Your task to perform on an android device: Open Yahoo.com Image 0: 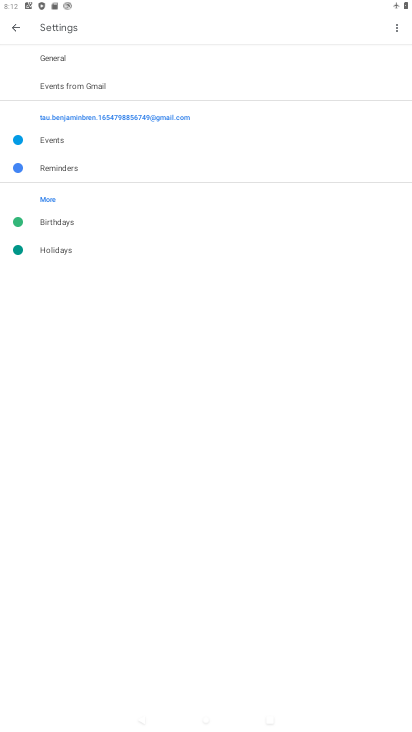
Step 0: click (35, 7)
Your task to perform on an android device: Open Yahoo.com Image 1: 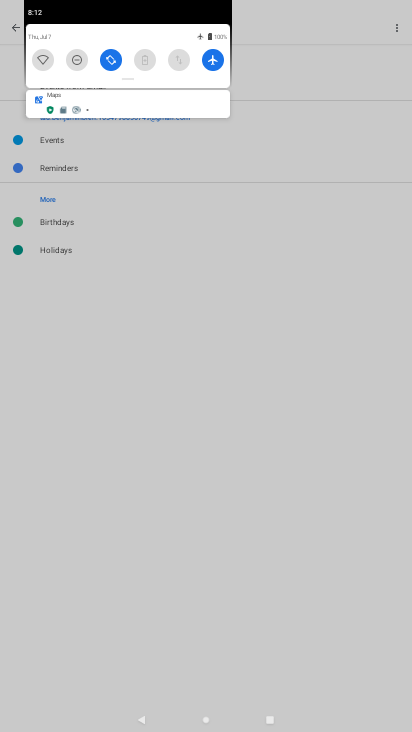
Step 1: click (20, 20)
Your task to perform on an android device: Open Yahoo.com Image 2: 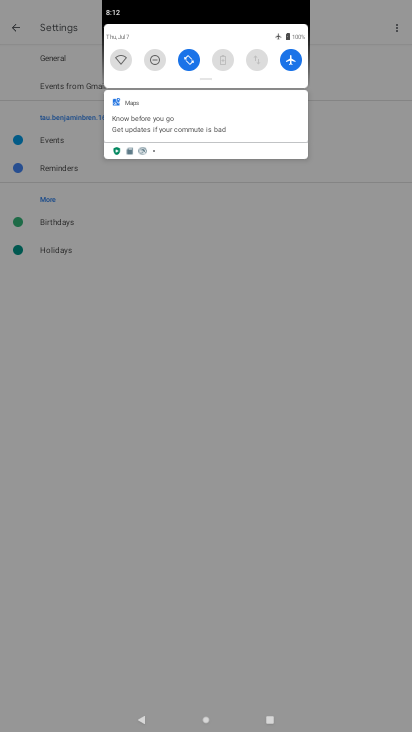
Step 2: click (20, 20)
Your task to perform on an android device: Open Yahoo.com Image 3: 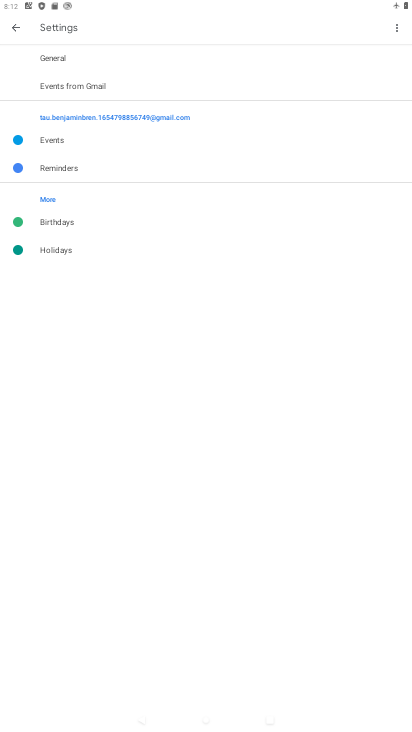
Step 3: click (9, 21)
Your task to perform on an android device: Open Yahoo.com Image 4: 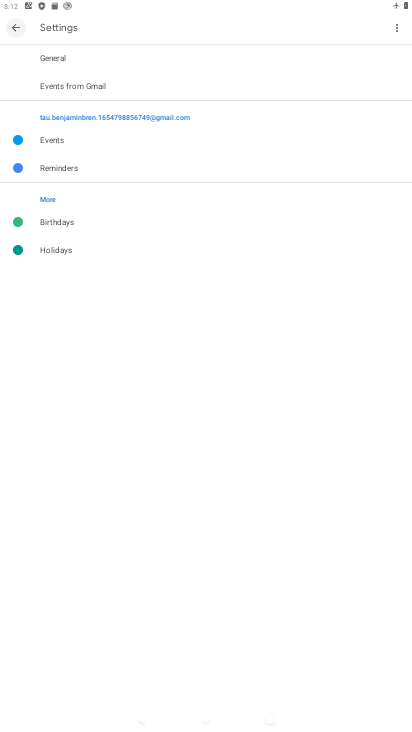
Step 4: click (11, 21)
Your task to perform on an android device: Open Yahoo.com Image 5: 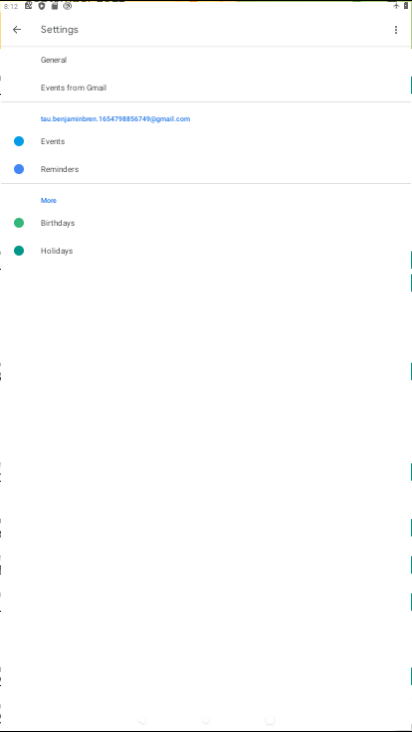
Step 5: click (11, 21)
Your task to perform on an android device: Open Yahoo.com Image 6: 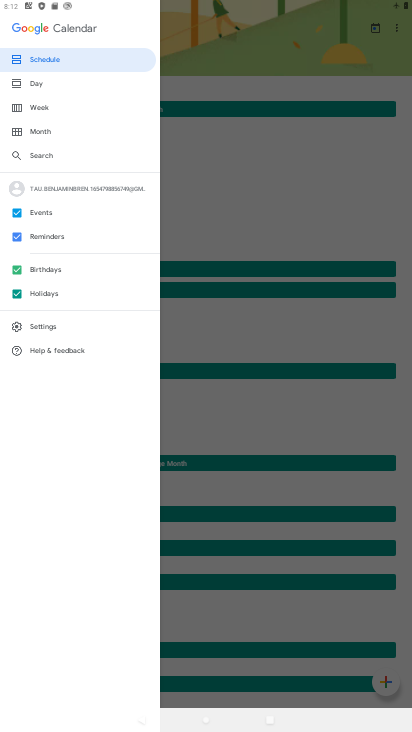
Step 6: press back button
Your task to perform on an android device: Open Yahoo.com Image 7: 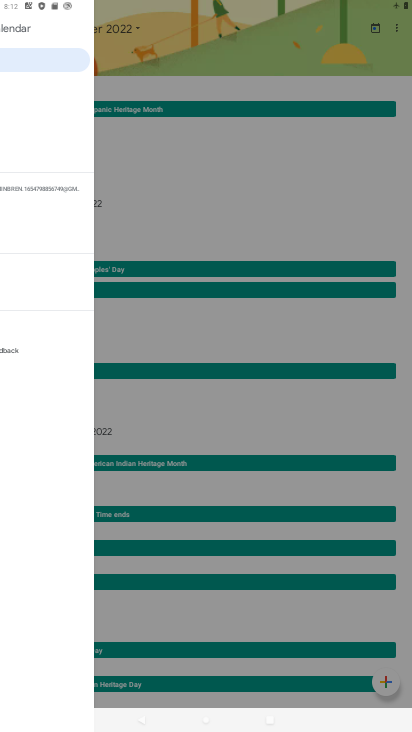
Step 7: press back button
Your task to perform on an android device: Open Yahoo.com Image 8: 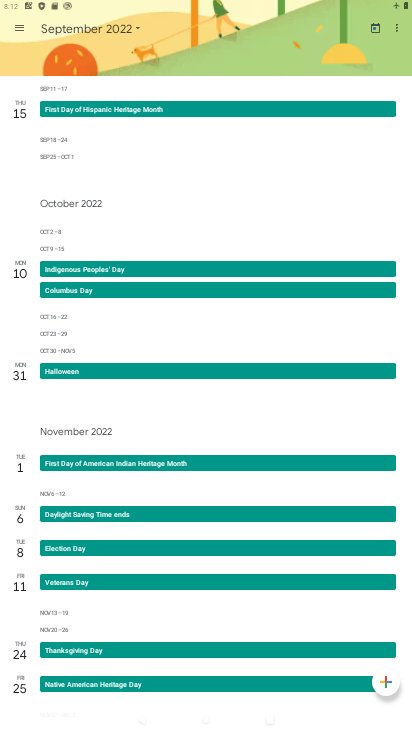
Step 8: press back button
Your task to perform on an android device: Open Yahoo.com Image 9: 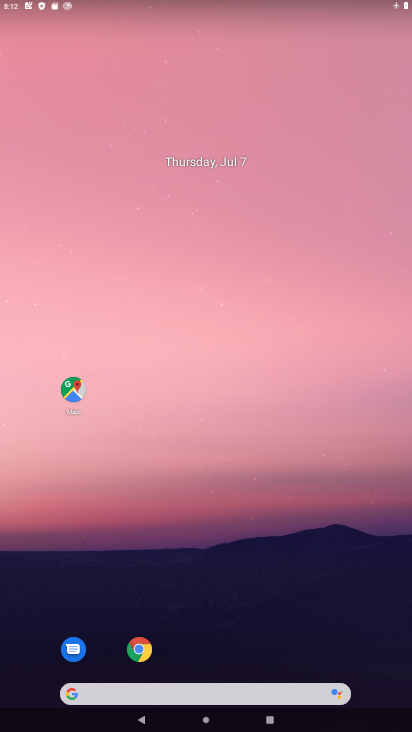
Step 9: drag from (254, 418) to (204, 65)
Your task to perform on an android device: Open Yahoo.com Image 10: 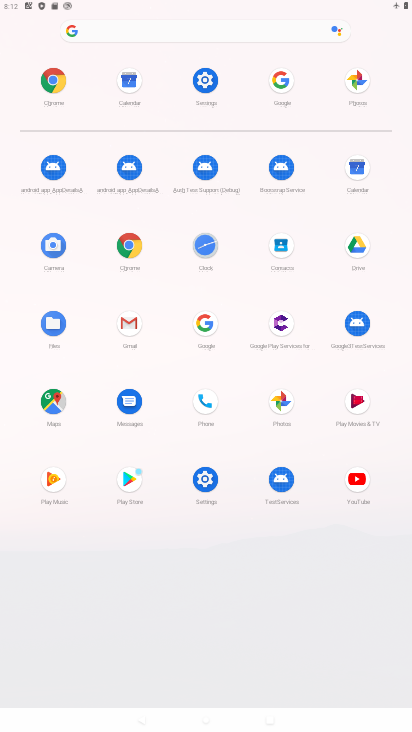
Step 10: click (124, 249)
Your task to perform on an android device: Open Yahoo.com Image 11: 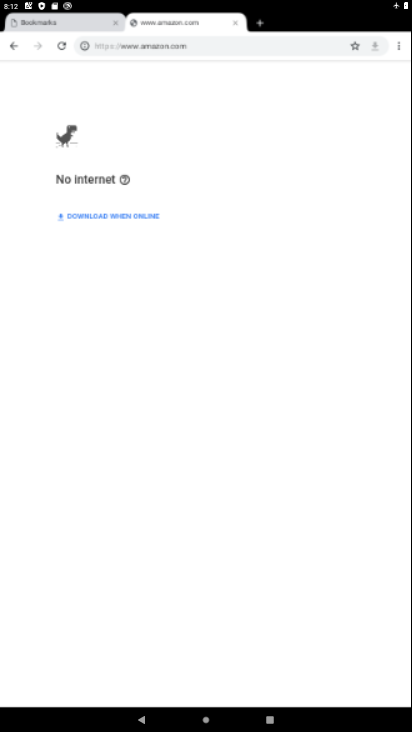
Step 11: click (124, 253)
Your task to perform on an android device: Open Yahoo.com Image 12: 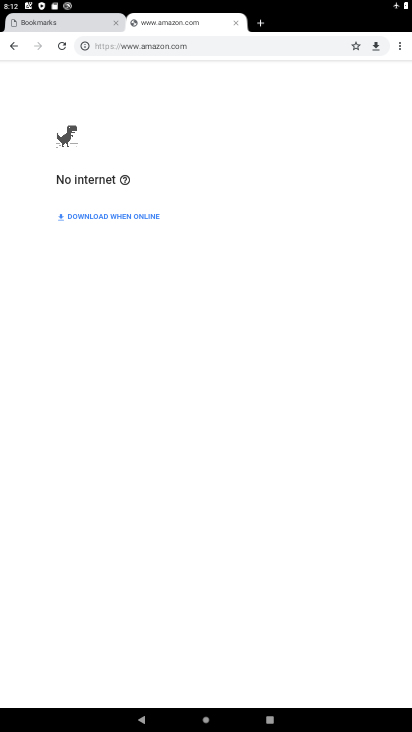
Step 12: task complete